Your task to perform on an android device: Open privacy settings Image 0: 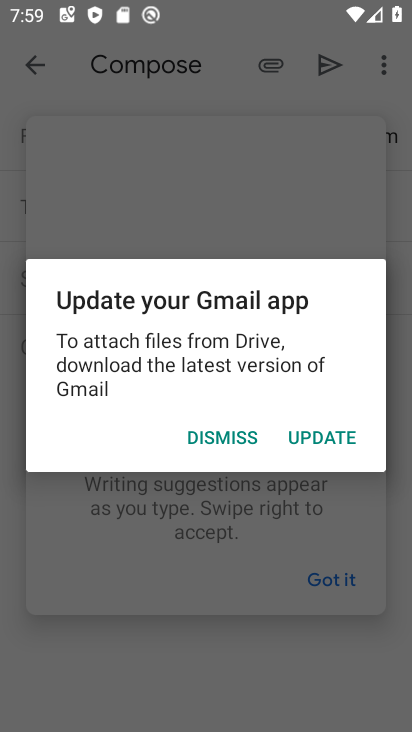
Step 0: press home button
Your task to perform on an android device: Open privacy settings Image 1: 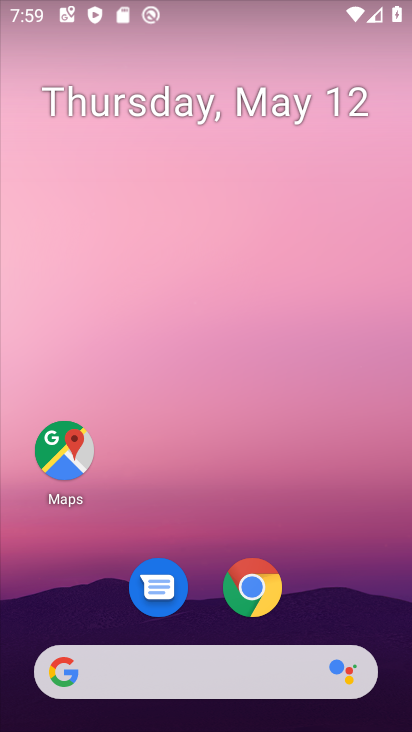
Step 1: drag from (325, 580) to (265, 237)
Your task to perform on an android device: Open privacy settings Image 2: 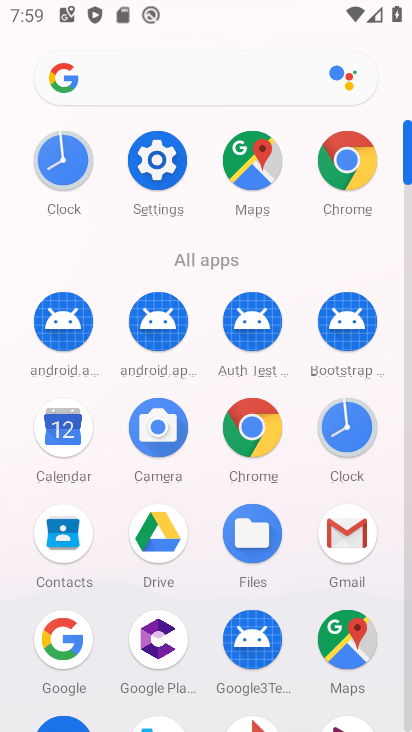
Step 2: click (151, 147)
Your task to perform on an android device: Open privacy settings Image 3: 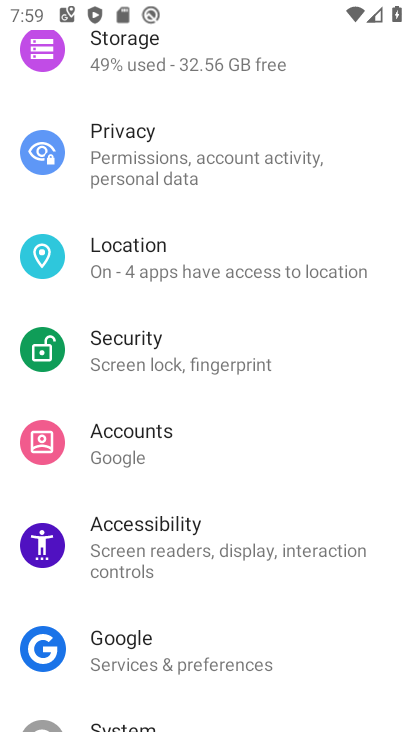
Step 3: drag from (204, 605) to (187, 426)
Your task to perform on an android device: Open privacy settings Image 4: 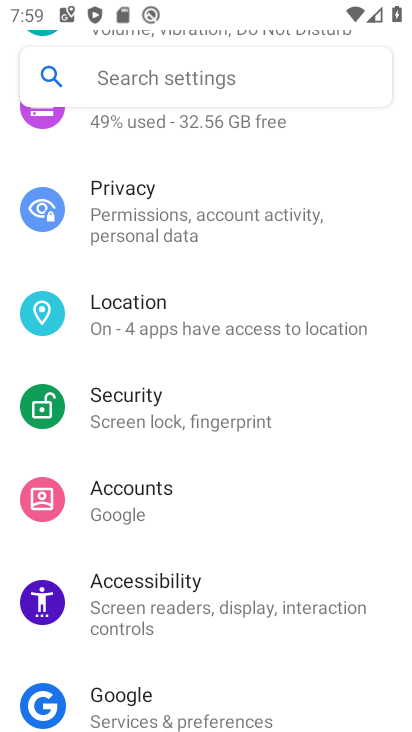
Step 4: click (154, 219)
Your task to perform on an android device: Open privacy settings Image 5: 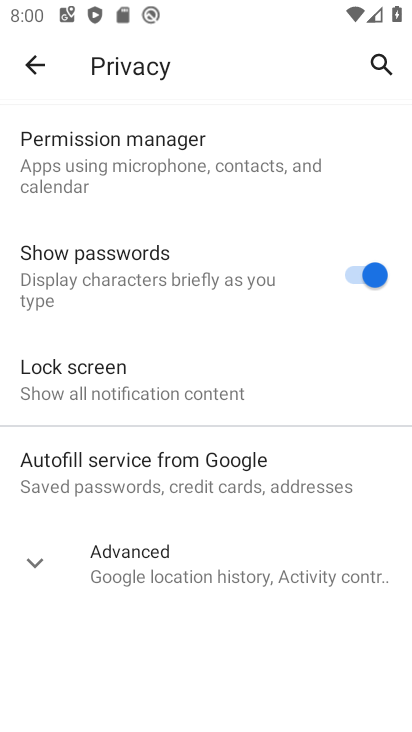
Step 5: task complete